Your task to perform on an android device: change your default location settings in chrome Image 0: 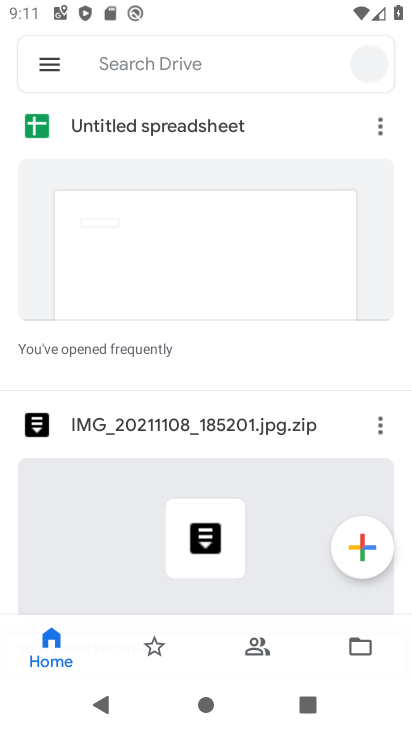
Step 0: press home button
Your task to perform on an android device: change your default location settings in chrome Image 1: 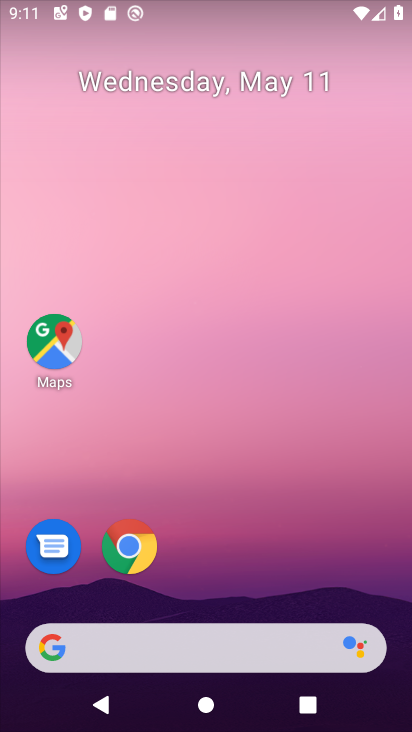
Step 1: drag from (394, 607) to (305, 68)
Your task to perform on an android device: change your default location settings in chrome Image 2: 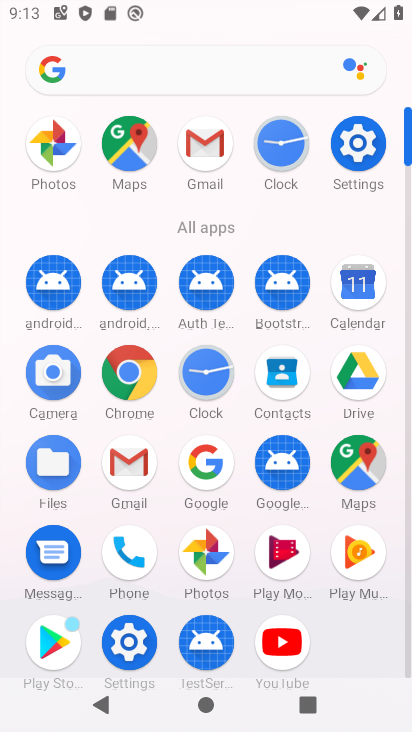
Step 2: click (138, 381)
Your task to perform on an android device: change your default location settings in chrome Image 3: 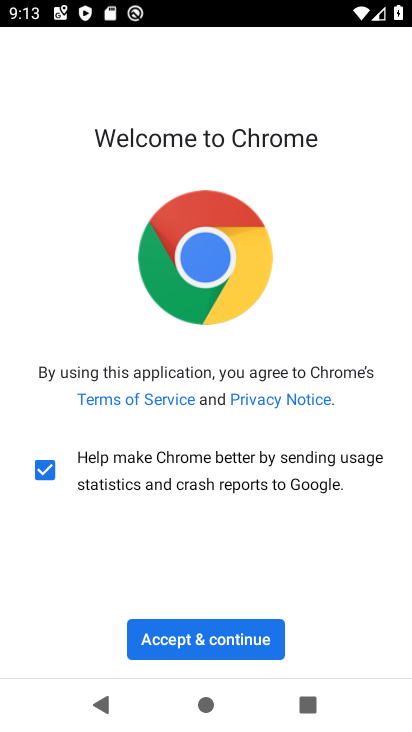
Step 3: click (201, 620)
Your task to perform on an android device: change your default location settings in chrome Image 4: 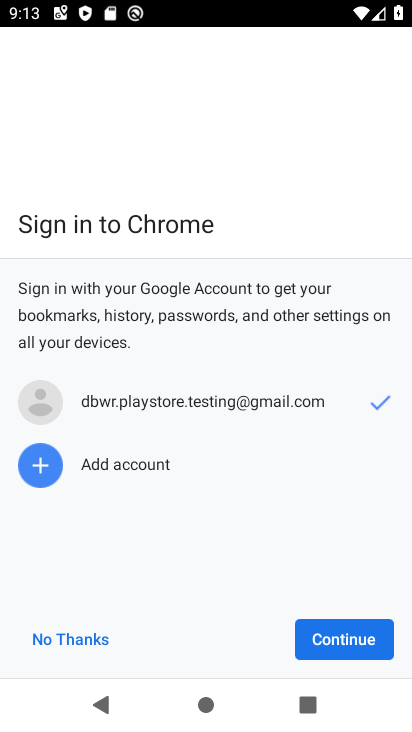
Step 4: click (407, 637)
Your task to perform on an android device: change your default location settings in chrome Image 5: 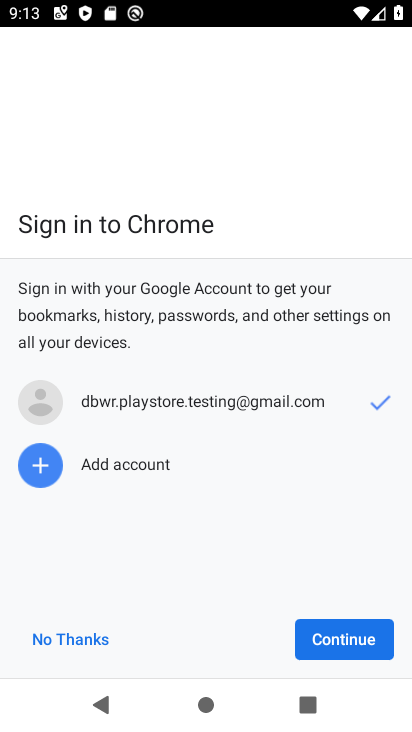
Step 5: click (362, 639)
Your task to perform on an android device: change your default location settings in chrome Image 6: 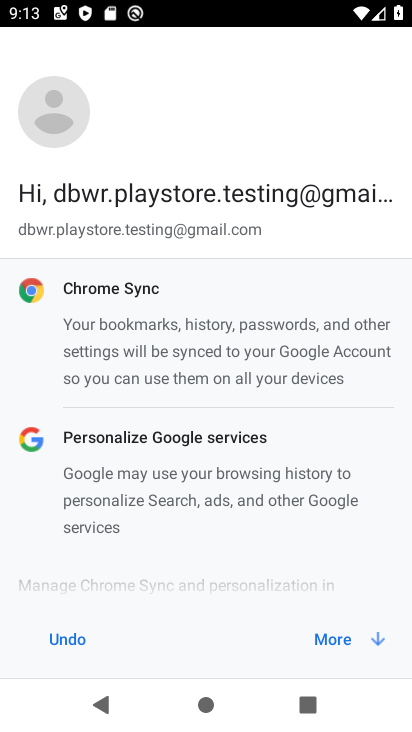
Step 6: click (342, 634)
Your task to perform on an android device: change your default location settings in chrome Image 7: 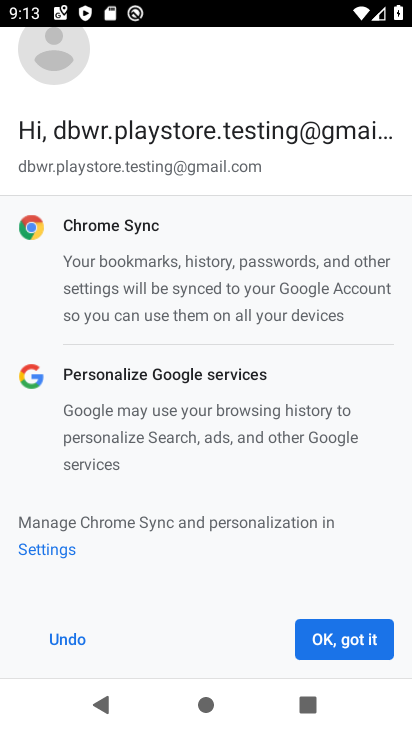
Step 7: click (341, 634)
Your task to perform on an android device: change your default location settings in chrome Image 8: 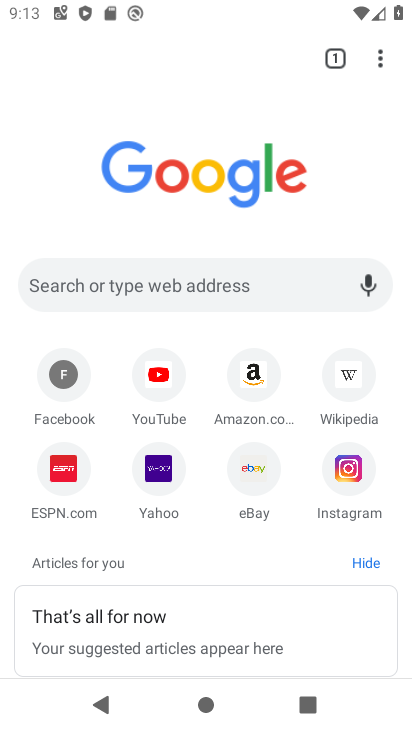
Step 8: click (378, 58)
Your task to perform on an android device: change your default location settings in chrome Image 9: 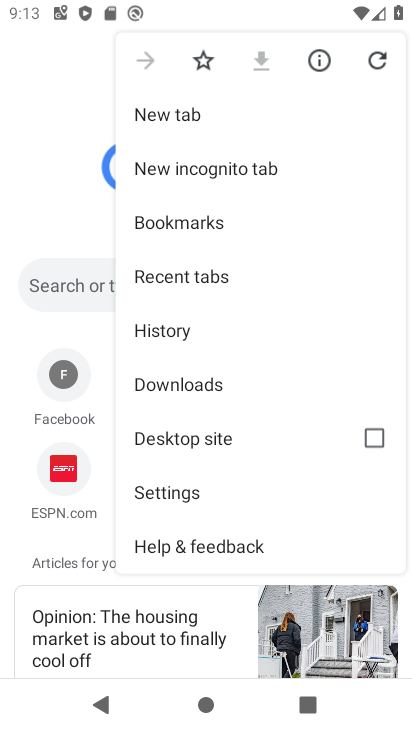
Step 9: click (228, 497)
Your task to perform on an android device: change your default location settings in chrome Image 10: 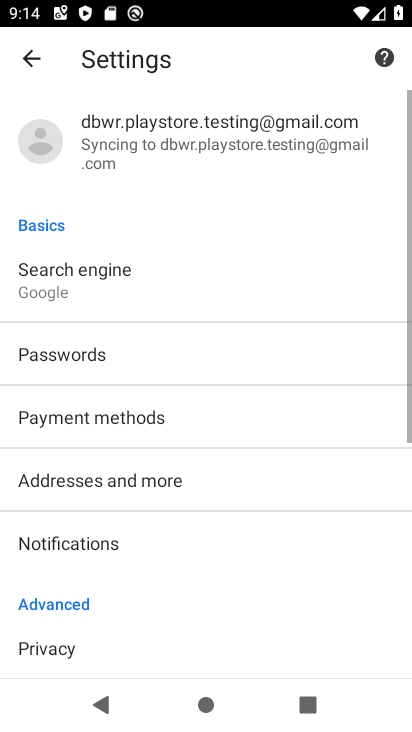
Step 10: click (112, 275)
Your task to perform on an android device: change your default location settings in chrome Image 11: 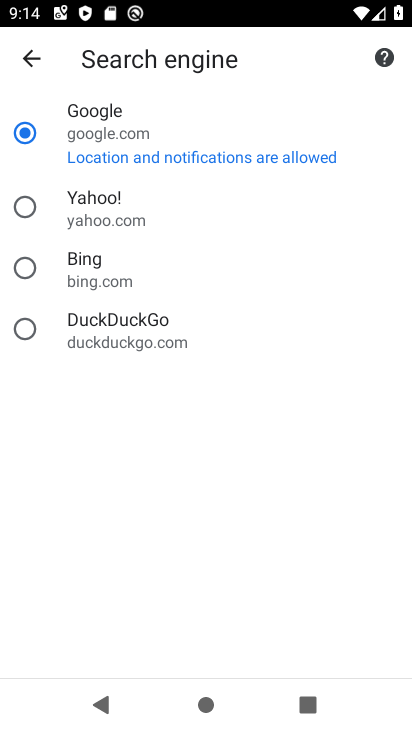
Step 11: click (137, 231)
Your task to perform on an android device: change your default location settings in chrome Image 12: 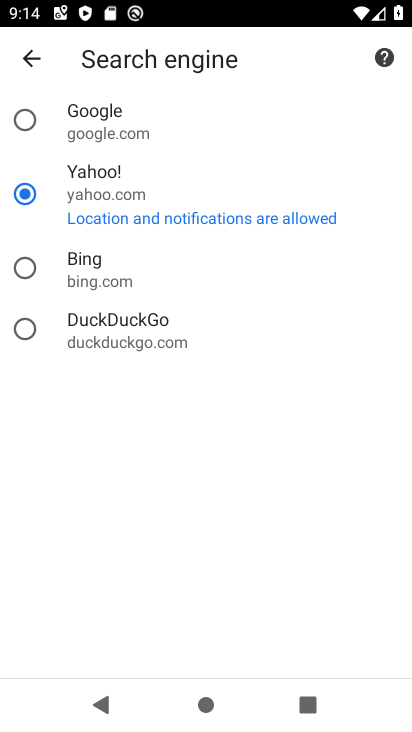
Step 12: task complete